Your task to perform on an android device: refresh tabs in the chrome app Image 0: 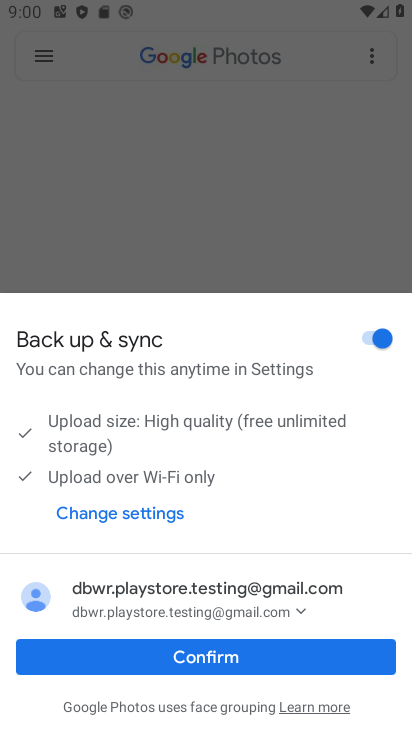
Step 0: press home button
Your task to perform on an android device: refresh tabs in the chrome app Image 1: 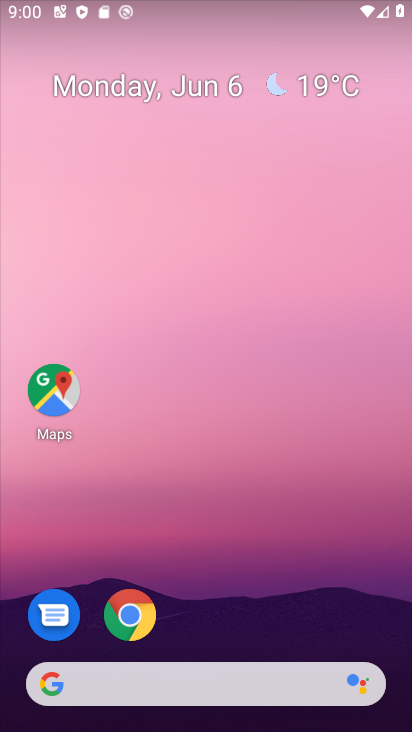
Step 1: click (134, 621)
Your task to perform on an android device: refresh tabs in the chrome app Image 2: 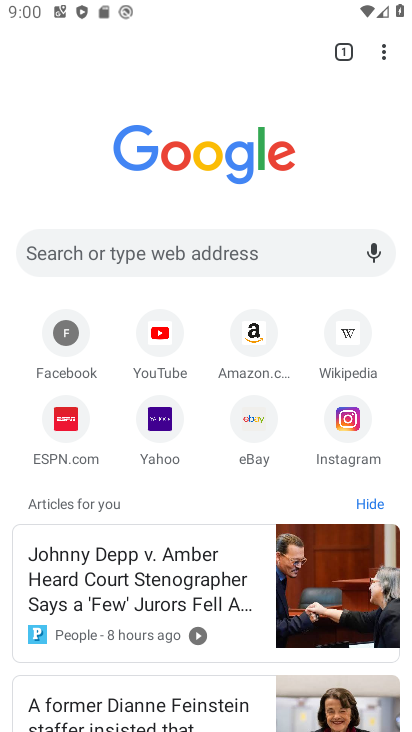
Step 2: click (380, 39)
Your task to perform on an android device: refresh tabs in the chrome app Image 3: 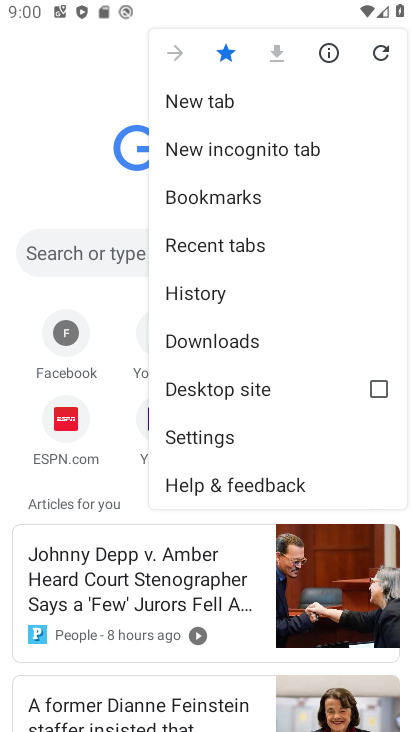
Step 3: click (380, 59)
Your task to perform on an android device: refresh tabs in the chrome app Image 4: 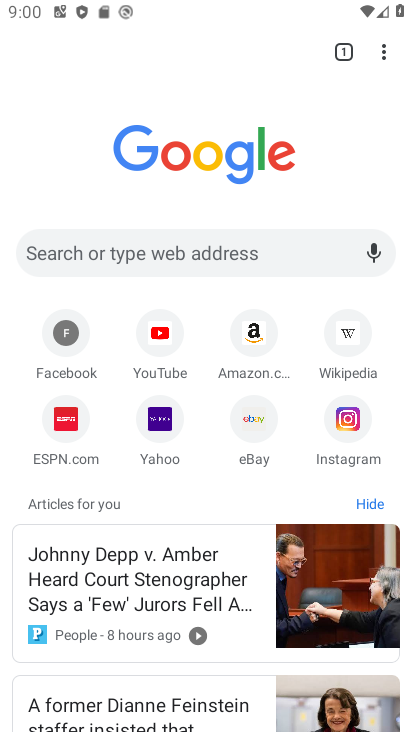
Step 4: click (380, 59)
Your task to perform on an android device: refresh tabs in the chrome app Image 5: 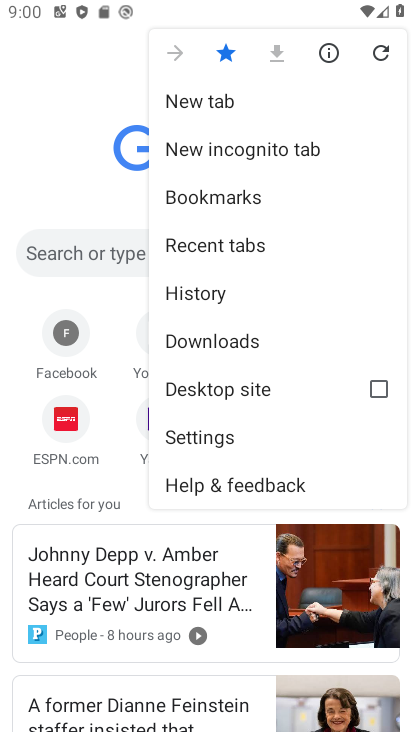
Step 5: click (380, 59)
Your task to perform on an android device: refresh tabs in the chrome app Image 6: 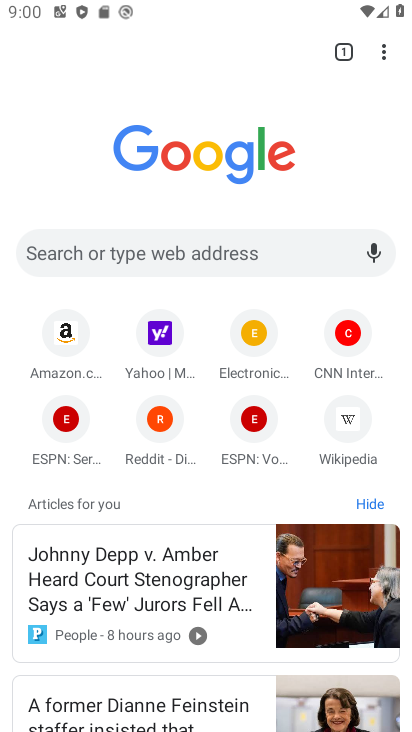
Step 6: task complete